Your task to perform on an android device: Open Amazon Image 0: 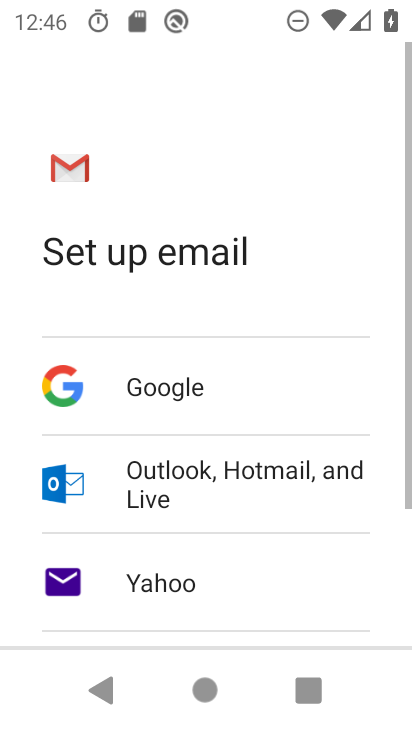
Step 0: press back button
Your task to perform on an android device: Open Amazon Image 1: 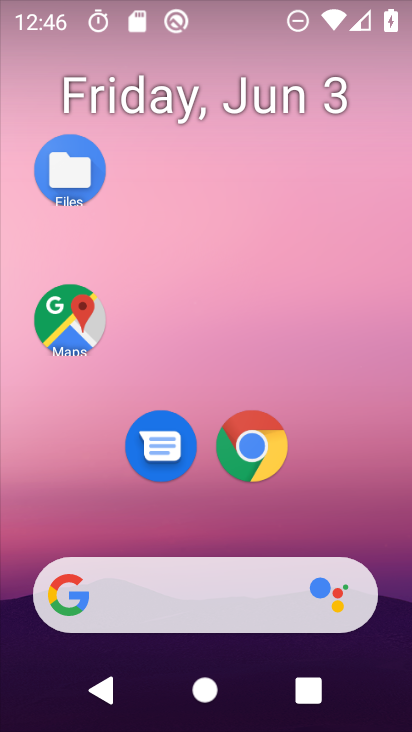
Step 1: drag from (265, 486) to (213, 155)
Your task to perform on an android device: Open Amazon Image 2: 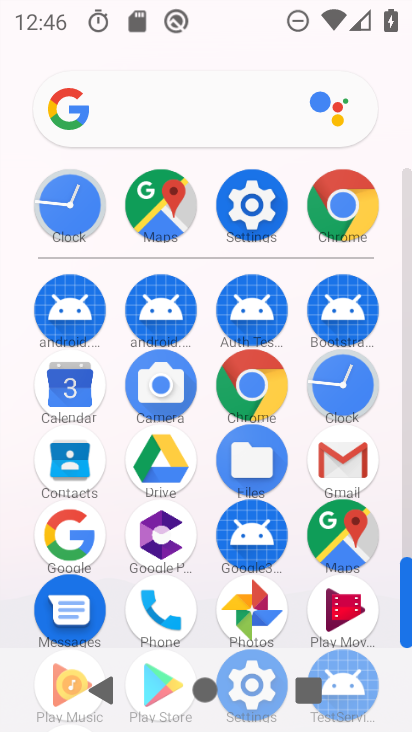
Step 2: click (329, 196)
Your task to perform on an android device: Open Amazon Image 3: 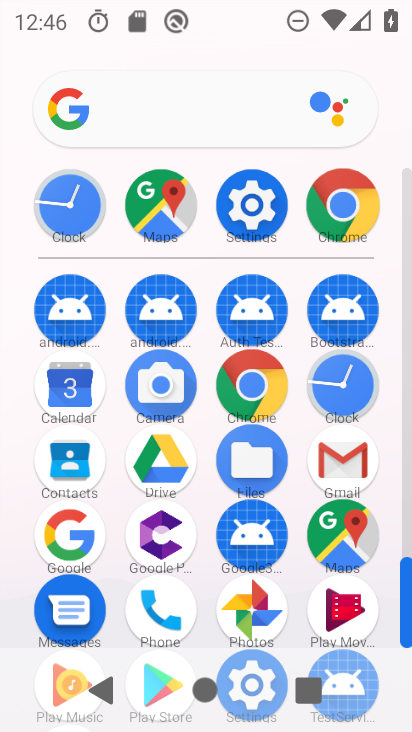
Step 3: click (332, 210)
Your task to perform on an android device: Open Amazon Image 4: 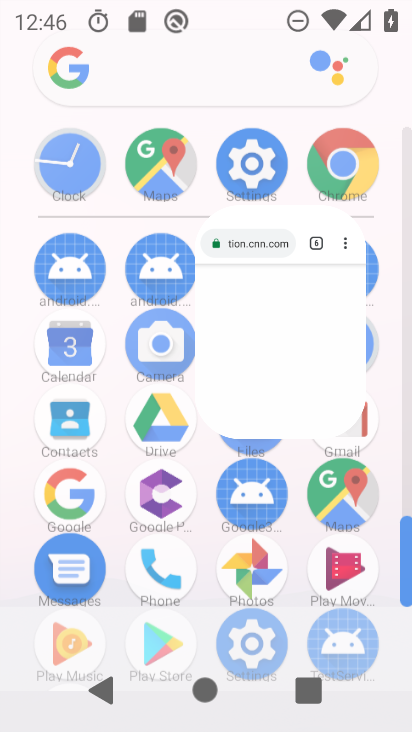
Step 4: click (334, 210)
Your task to perform on an android device: Open Amazon Image 5: 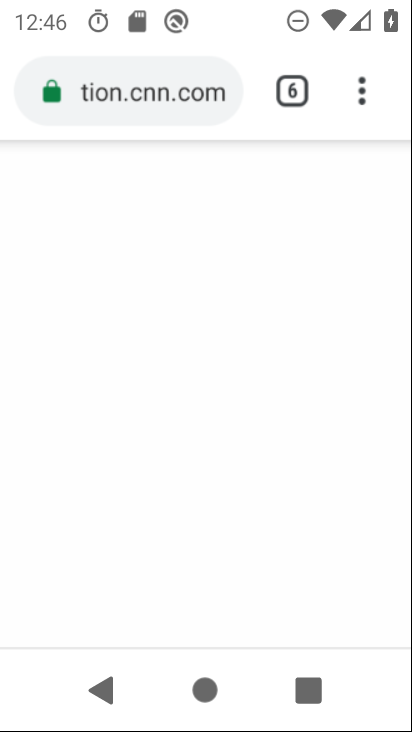
Step 5: click (335, 209)
Your task to perform on an android device: Open Amazon Image 6: 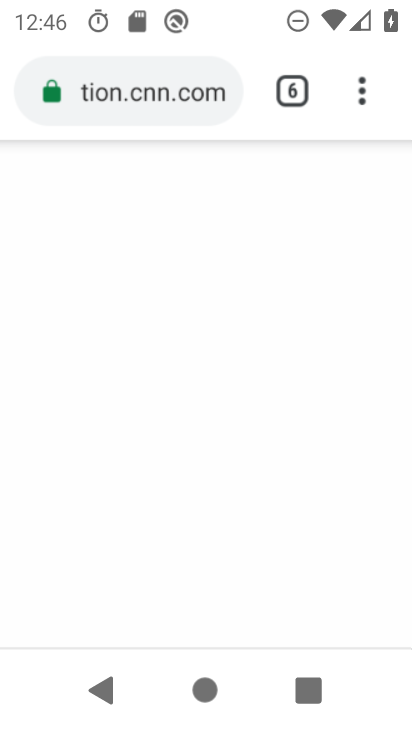
Step 6: click (335, 209)
Your task to perform on an android device: Open Amazon Image 7: 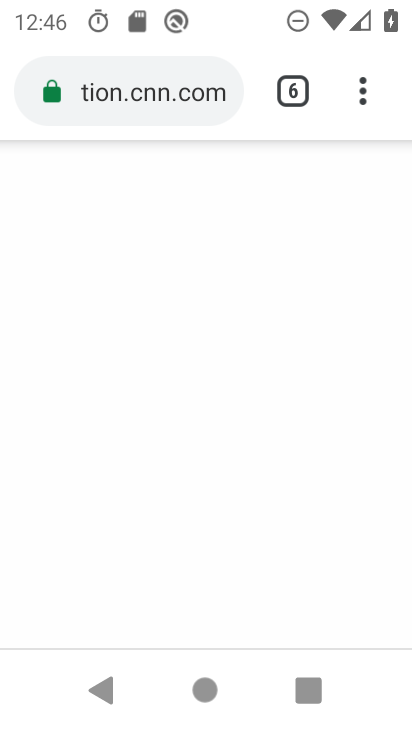
Step 7: drag from (363, 97) to (53, 176)
Your task to perform on an android device: Open Amazon Image 8: 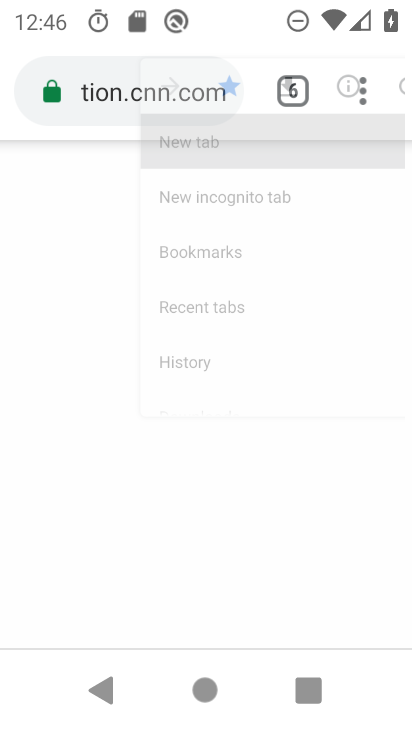
Step 8: click (53, 176)
Your task to perform on an android device: Open Amazon Image 9: 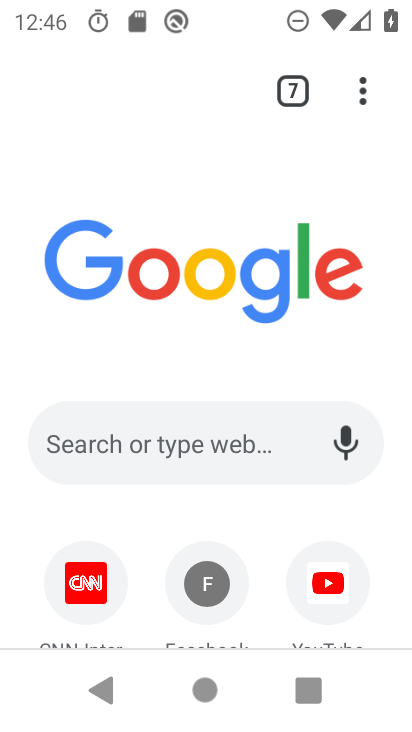
Step 9: click (53, 176)
Your task to perform on an android device: Open Amazon Image 10: 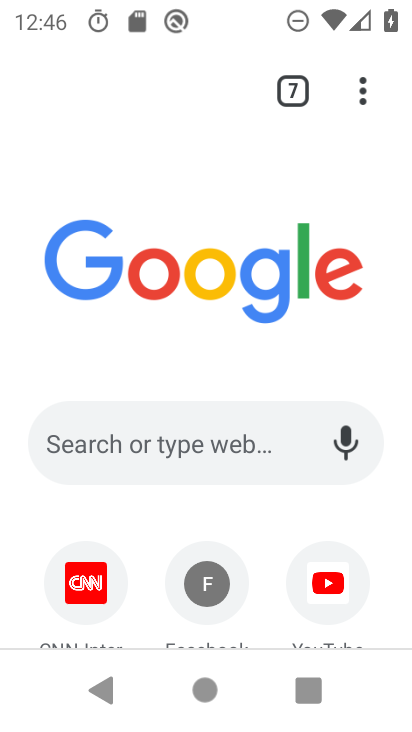
Step 10: click (53, 176)
Your task to perform on an android device: Open Amazon Image 11: 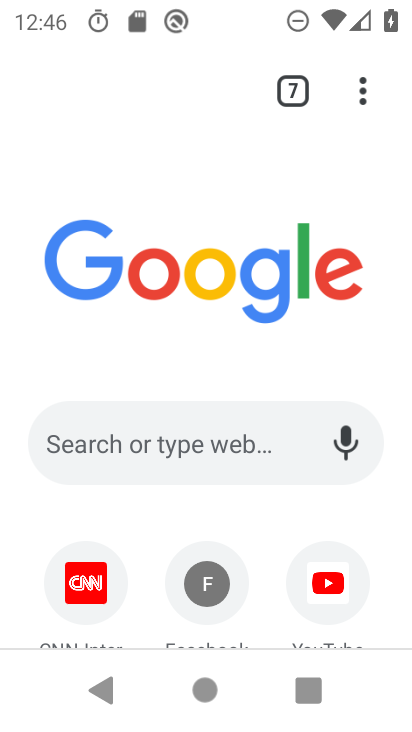
Step 11: click (53, 176)
Your task to perform on an android device: Open Amazon Image 12: 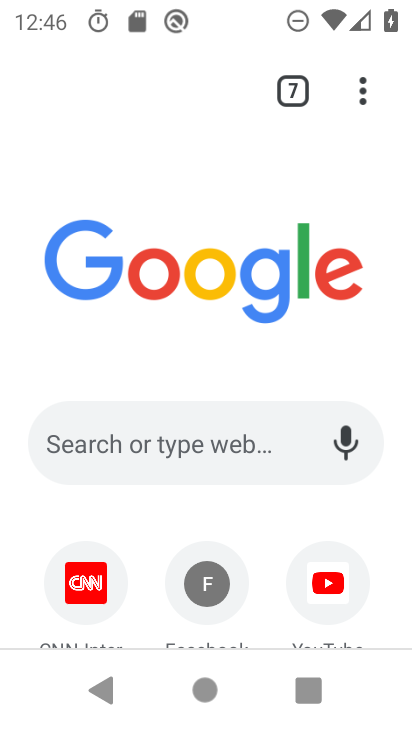
Step 12: drag from (242, 551) to (217, 195)
Your task to perform on an android device: Open Amazon Image 13: 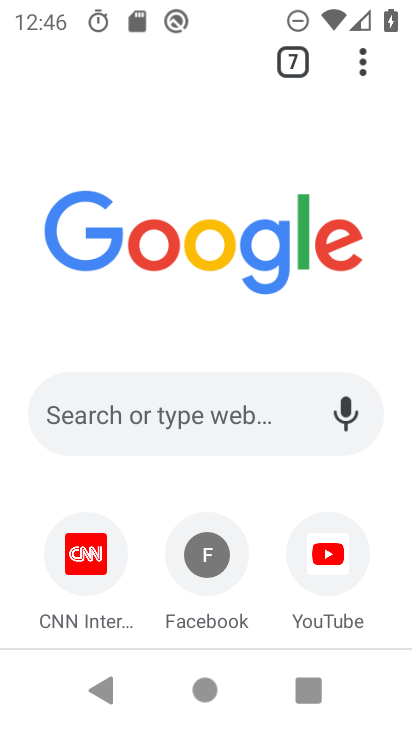
Step 13: drag from (226, 419) to (187, 41)
Your task to perform on an android device: Open Amazon Image 14: 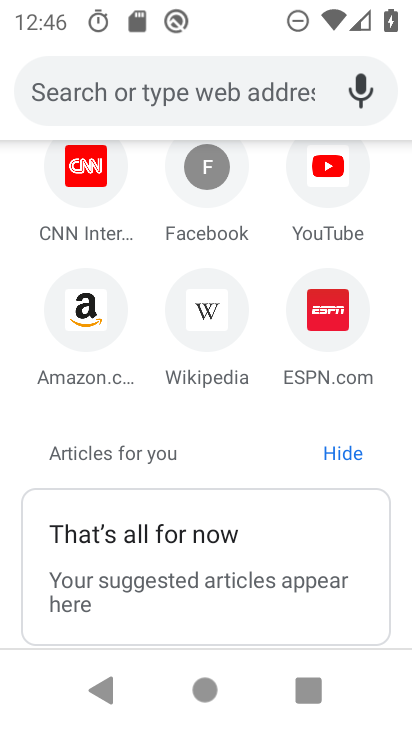
Step 14: drag from (194, 384) to (145, 86)
Your task to perform on an android device: Open Amazon Image 15: 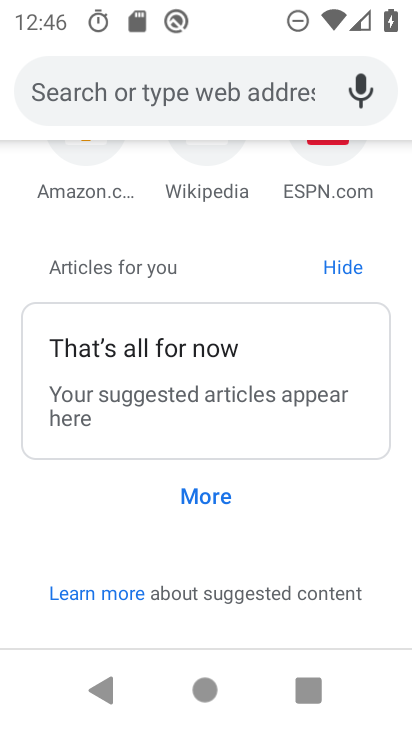
Step 15: click (69, 164)
Your task to perform on an android device: Open Amazon Image 16: 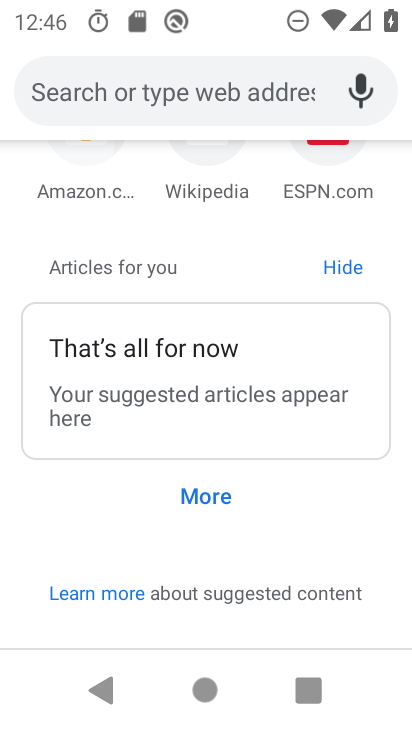
Step 16: drag from (72, 132) to (77, 167)
Your task to perform on an android device: Open Amazon Image 17: 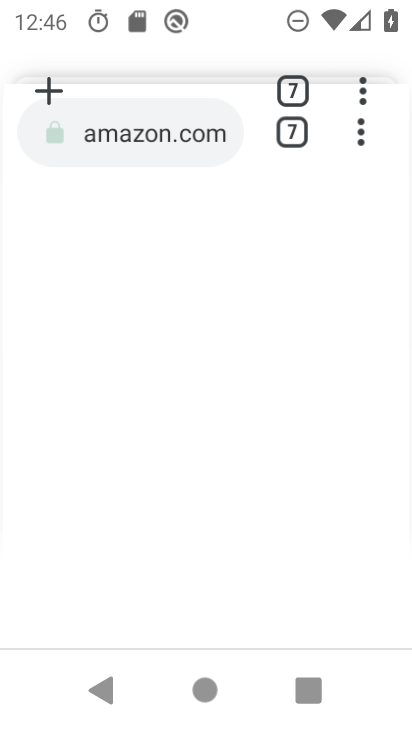
Step 17: click (77, 152)
Your task to perform on an android device: Open Amazon Image 18: 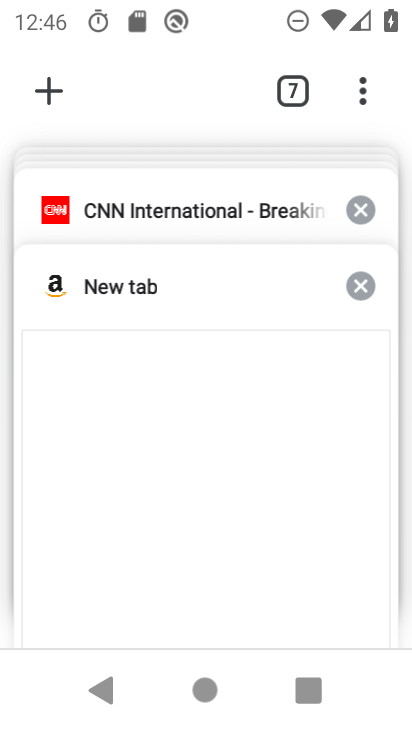
Step 18: click (77, 152)
Your task to perform on an android device: Open Amazon Image 19: 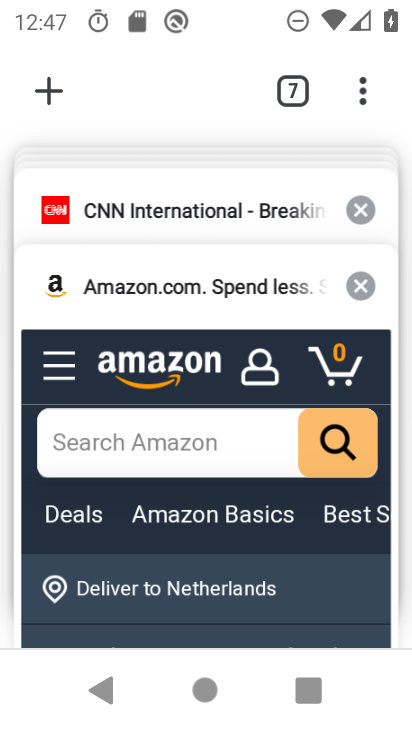
Step 19: task complete